Your task to perform on an android device: turn off location Image 0: 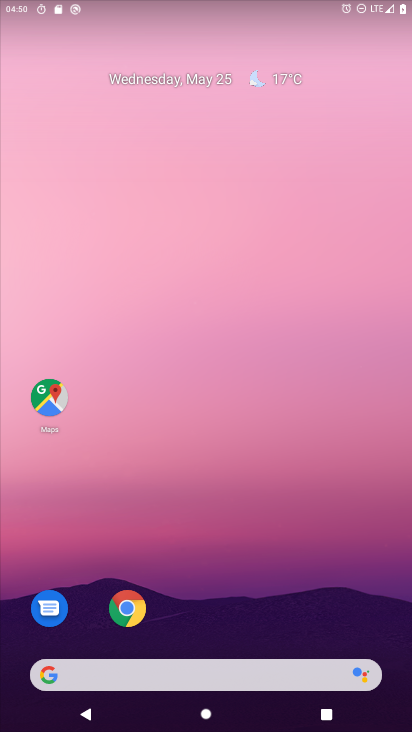
Step 0: drag from (262, 561) to (267, 107)
Your task to perform on an android device: turn off location Image 1: 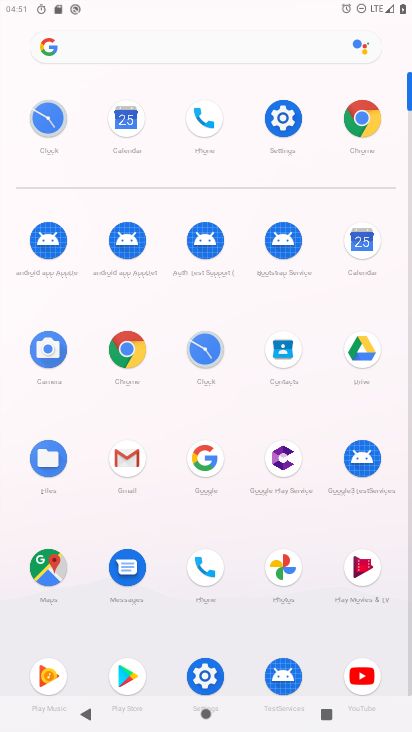
Step 1: click (279, 128)
Your task to perform on an android device: turn off location Image 2: 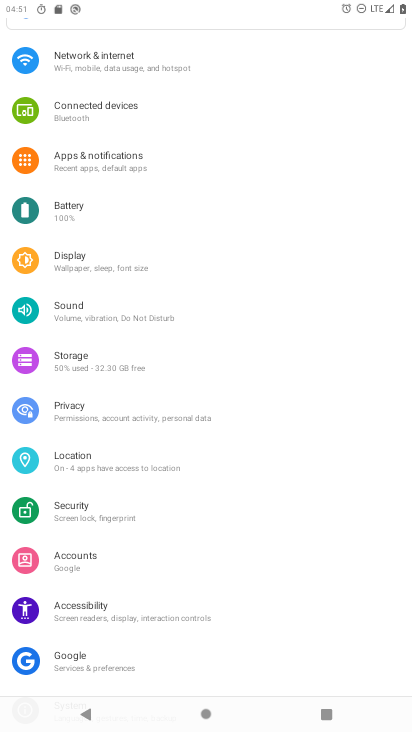
Step 2: drag from (98, 550) to (173, 678)
Your task to perform on an android device: turn off location Image 3: 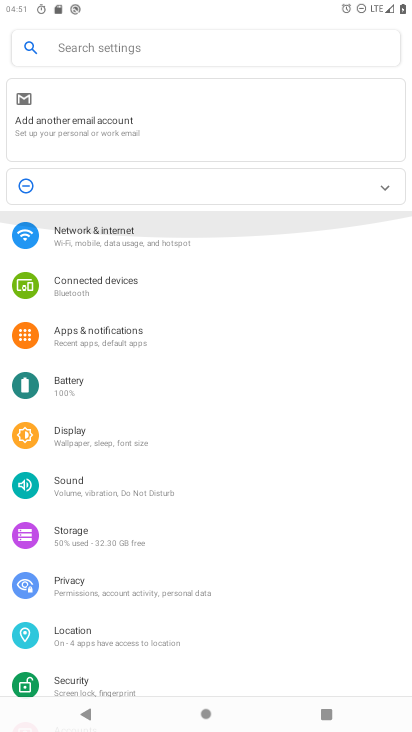
Step 3: drag from (149, 627) to (234, 215)
Your task to perform on an android device: turn off location Image 4: 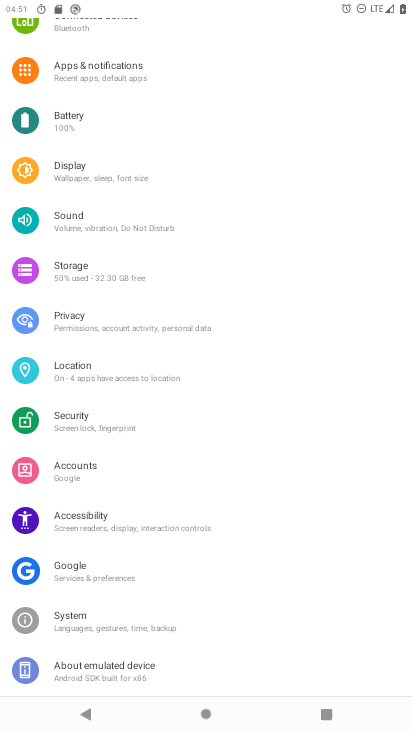
Step 4: click (97, 379)
Your task to perform on an android device: turn off location Image 5: 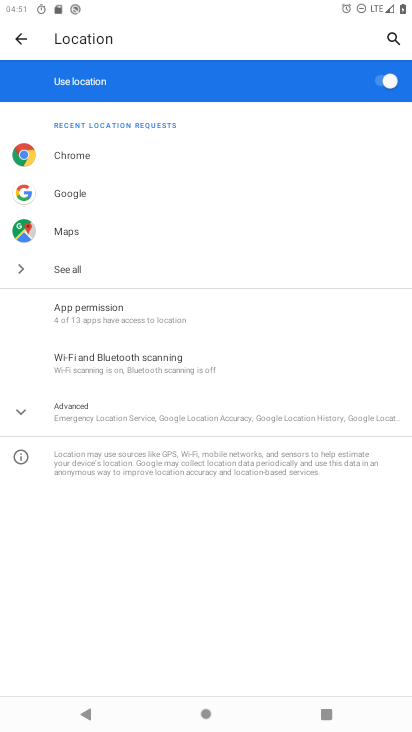
Step 5: click (124, 406)
Your task to perform on an android device: turn off location Image 6: 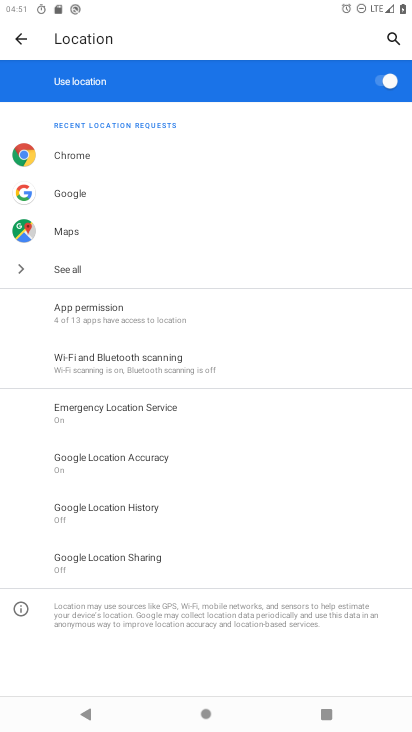
Step 6: click (368, 75)
Your task to perform on an android device: turn off location Image 7: 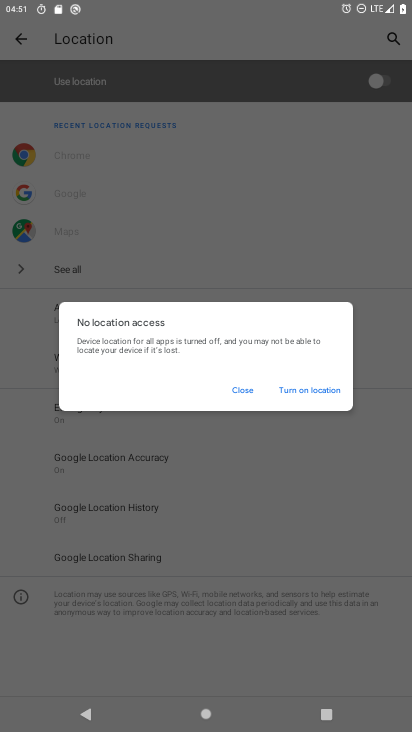
Step 7: press home button
Your task to perform on an android device: turn off location Image 8: 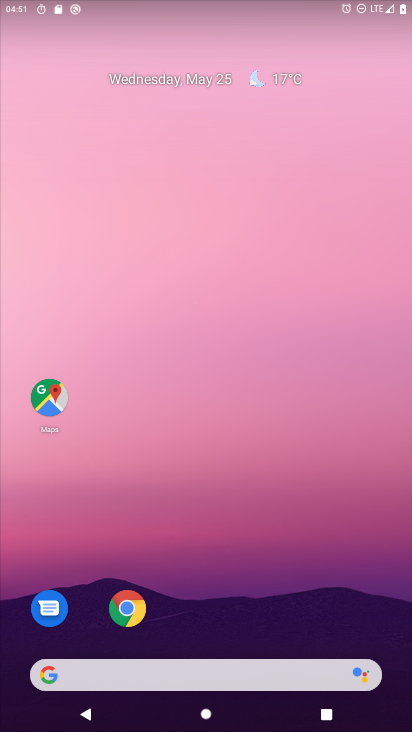
Step 8: drag from (331, 578) to (275, 150)
Your task to perform on an android device: turn off location Image 9: 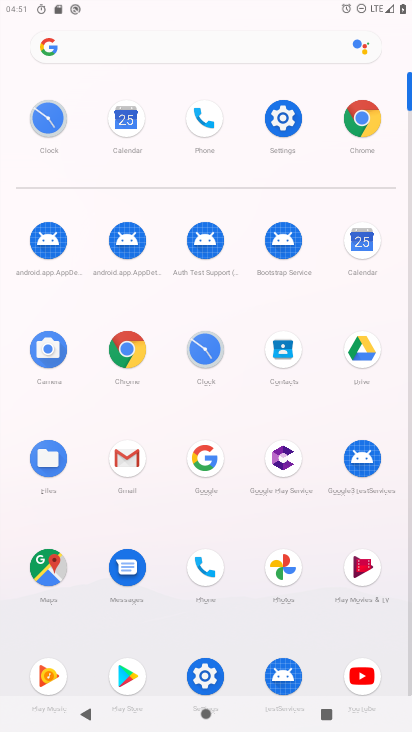
Step 9: click (286, 134)
Your task to perform on an android device: turn off location Image 10: 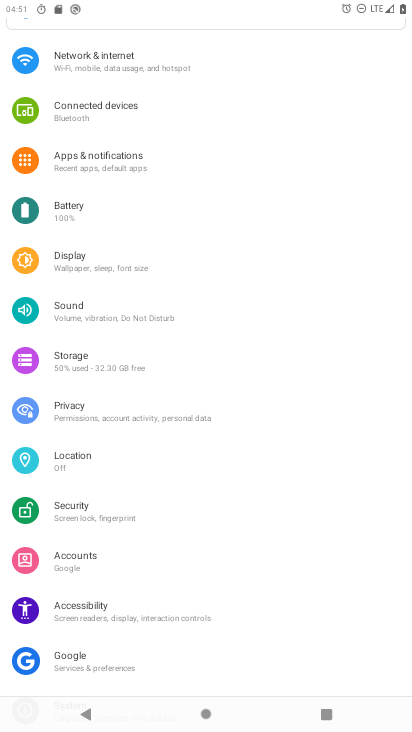
Step 10: drag from (162, 522) to (174, 324)
Your task to perform on an android device: turn off location Image 11: 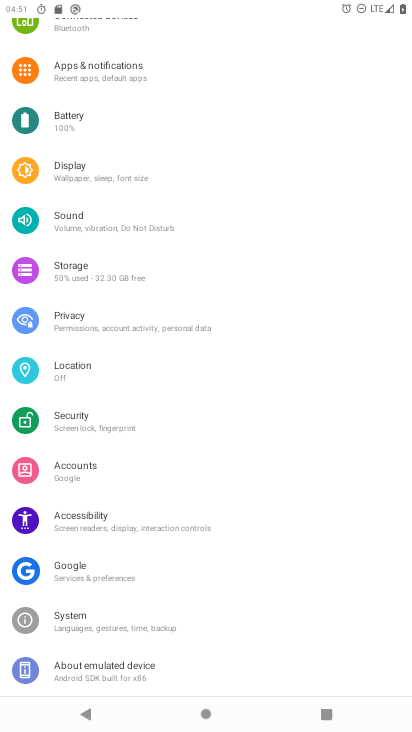
Step 11: click (93, 367)
Your task to perform on an android device: turn off location Image 12: 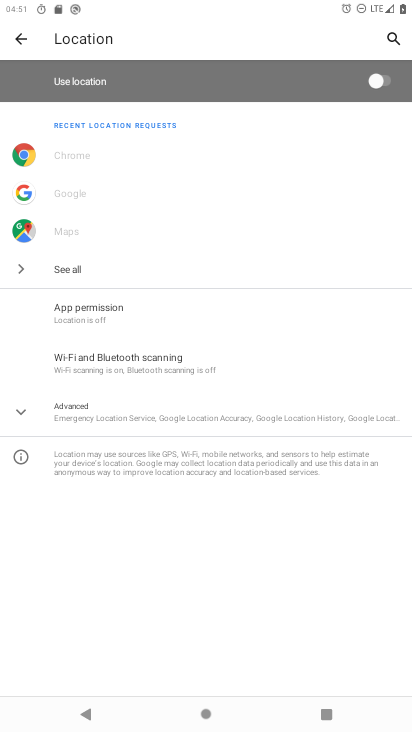
Step 12: task complete